Your task to perform on an android device: Open Chrome and go to the settings page Image 0: 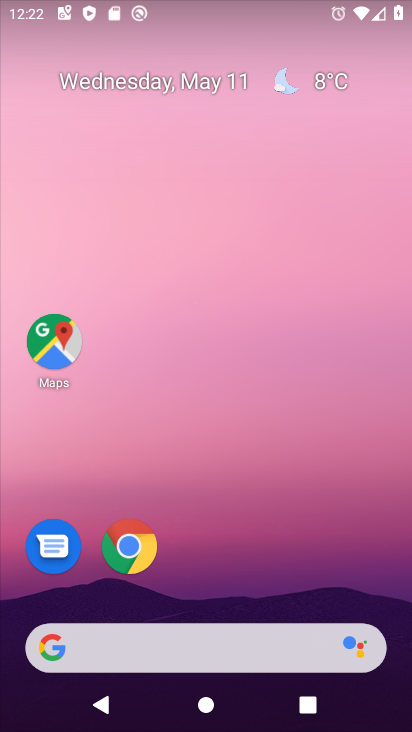
Step 0: drag from (231, 655) to (342, 72)
Your task to perform on an android device: Open Chrome and go to the settings page Image 1: 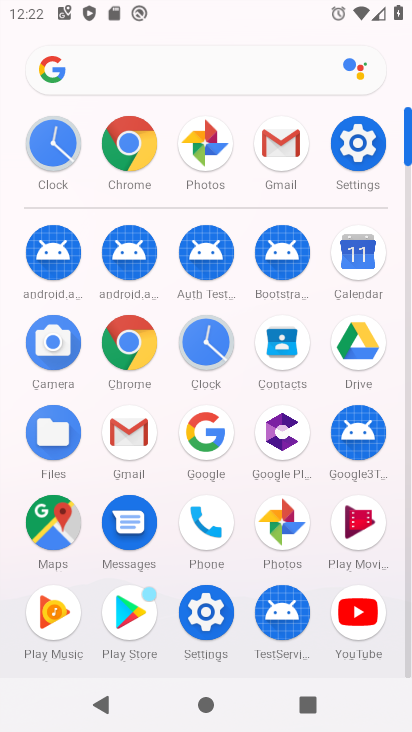
Step 1: click (127, 154)
Your task to perform on an android device: Open Chrome and go to the settings page Image 2: 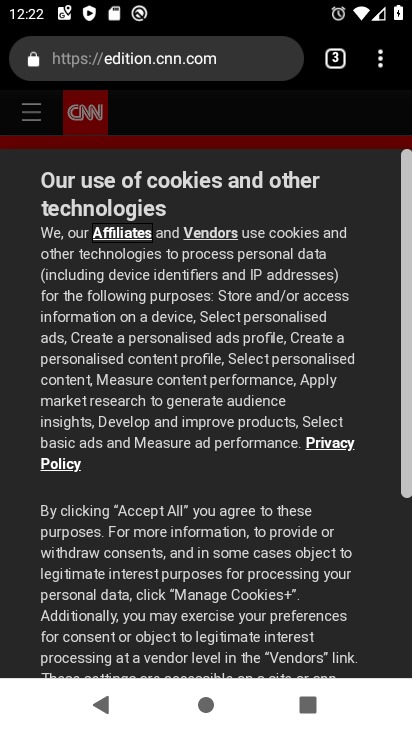
Step 2: task complete